Your task to perform on an android device: open a bookmark in the chrome app Image 0: 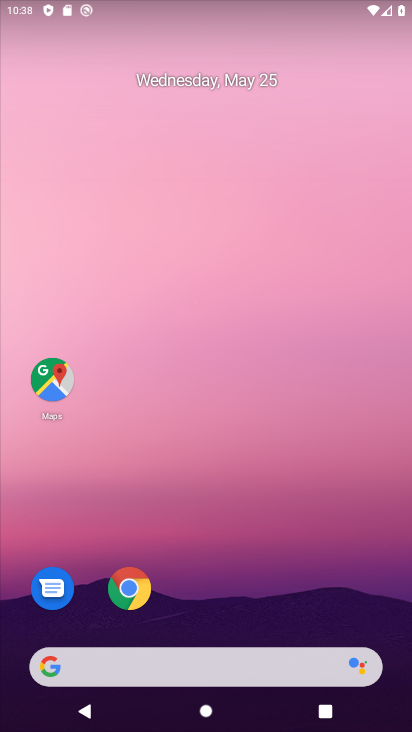
Step 0: click (130, 586)
Your task to perform on an android device: open a bookmark in the chrome app Image 1: 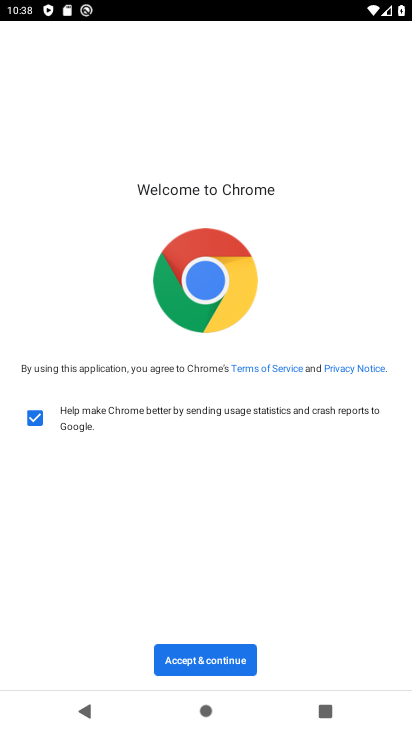
Step 1: click (191, 660)
Your task to perform on an android device: open a bookmark in the chrome app Image 2: 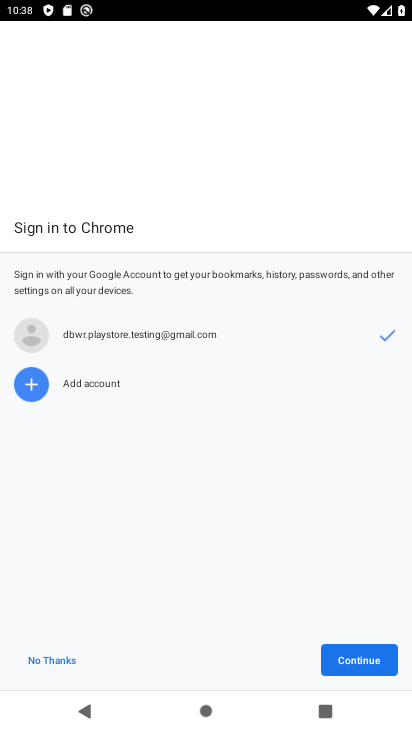
Step 2: click (351, 660)
Your task to perform on an android device: open a bookmark in the chrome app Image 3: 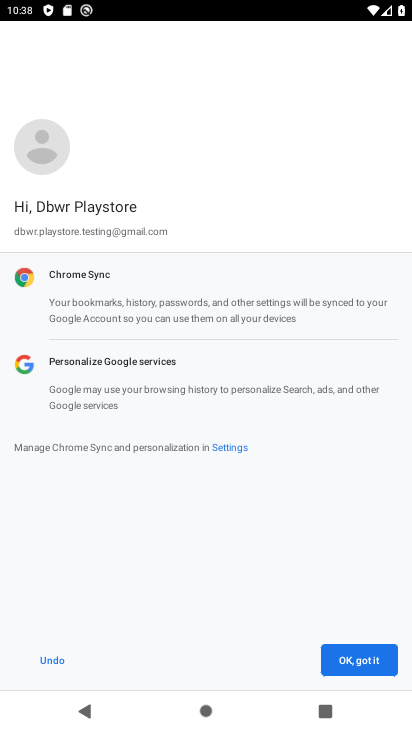
Step 3: click (351, 660)
Your task to perform on an android device: open a bookmark in the chrome app Image 4: 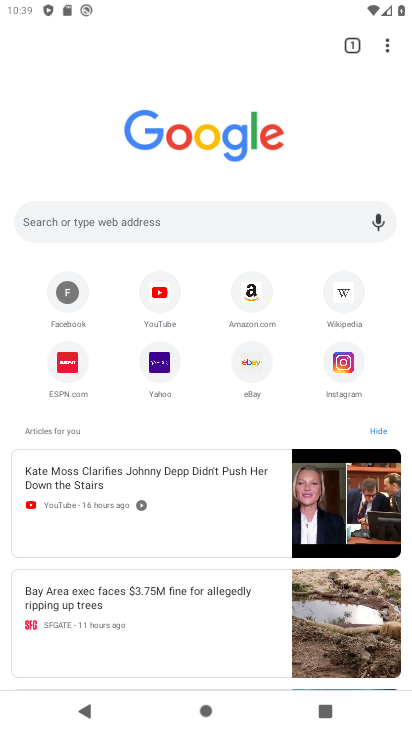
Step 4: click (387, 44)
Your task to perform on an android device: open a bookmark in the chrome app Image 5: 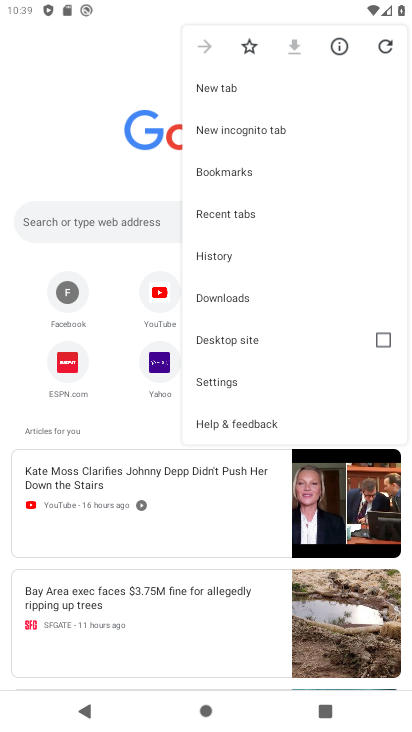
Step 5: click (247, 175)
Your task to perform on an android device: open a bookmark in the chrome app Image 6: 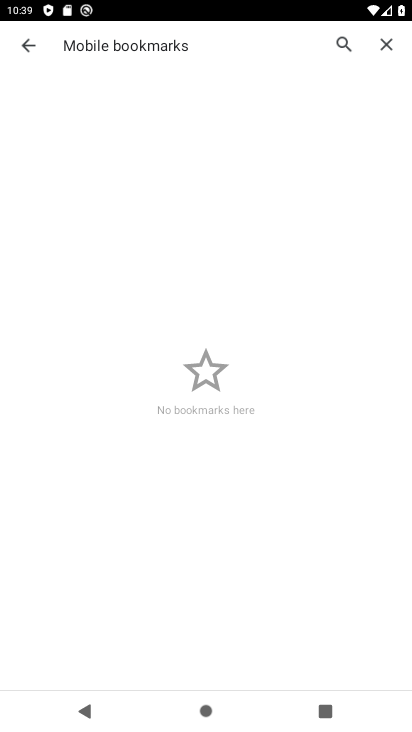
Step 6: task complete